Your task to perform on an android device: toggle airplane mode Image 0: 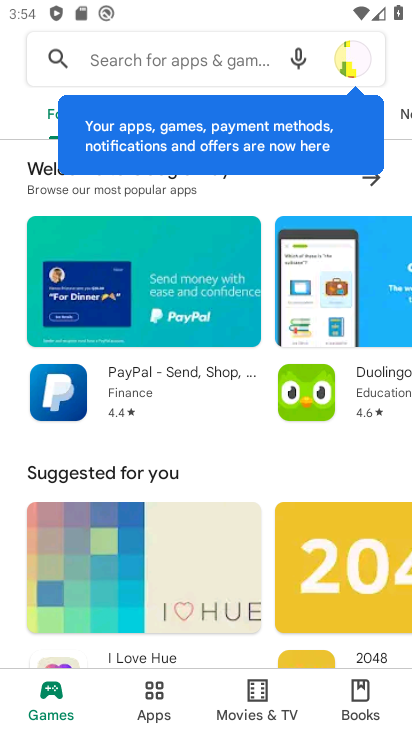
Step 0: press home button
Your task to perform on an android device: toggle airplane mode Image 1: 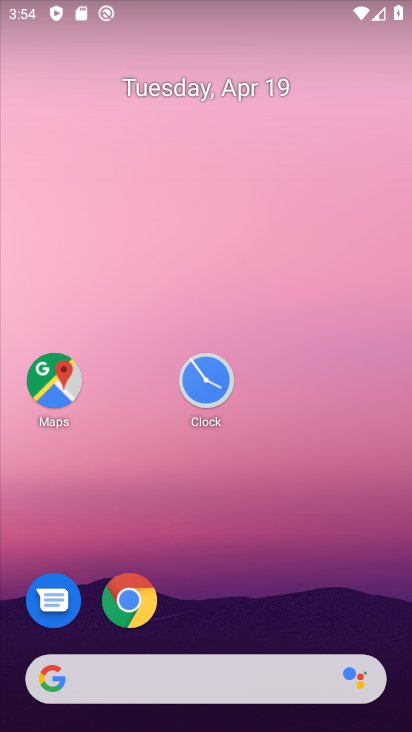
Step 1: drag from (274, 705) to (213, 200)
Your task to perform on an android device: toggle airplane mode Image 2: 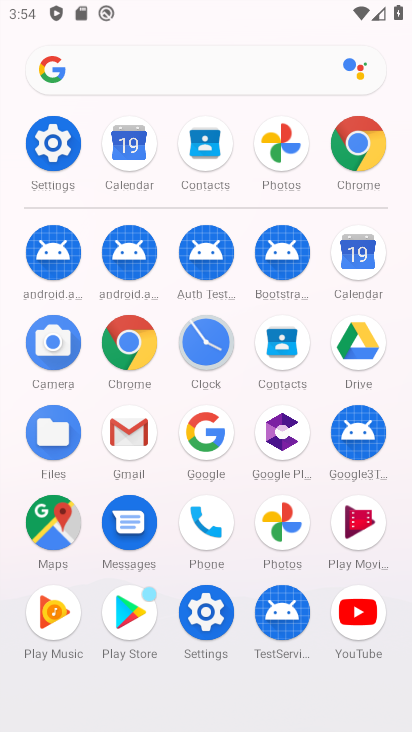
Step 2: click (57, 146)
Your task to perform on an android device: toggle airplane mode Image 3: 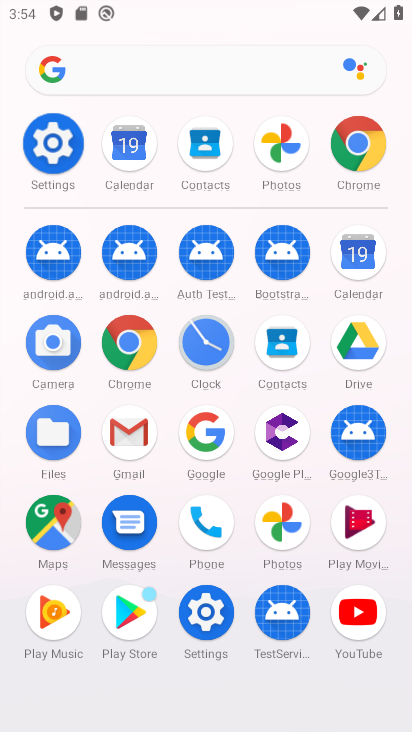
Step 3: click (57, 146)
Your task to perform on an android device: toggle airplane mode Image 4: 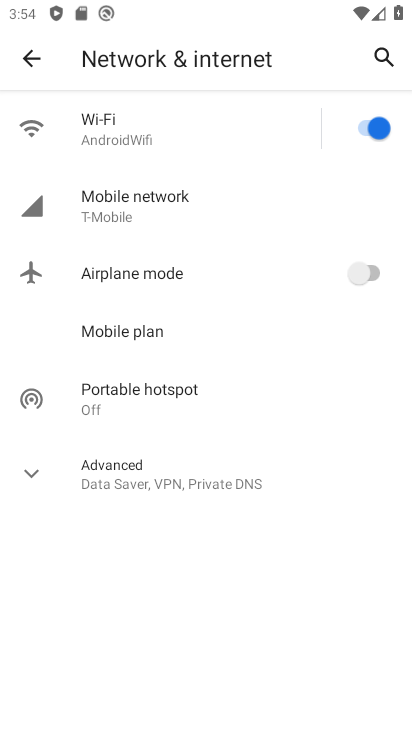
Step 4: click (362, 259)
Your task to perform on an android device: toggle airplane mode Image 5: 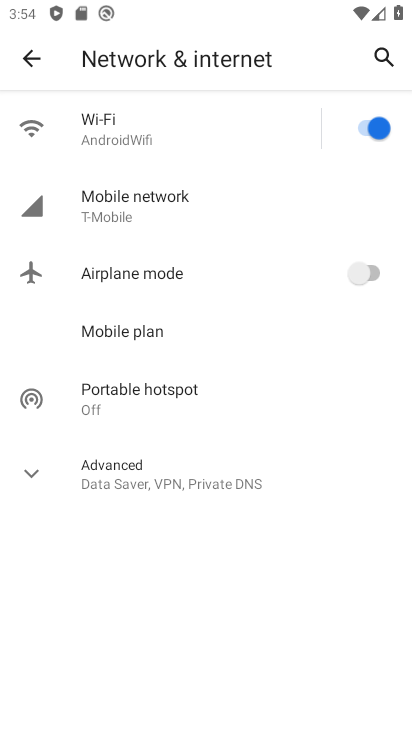
Step 5: click (357, 275)
Your task to perform on an android device: toggle airplane mode Image 6: 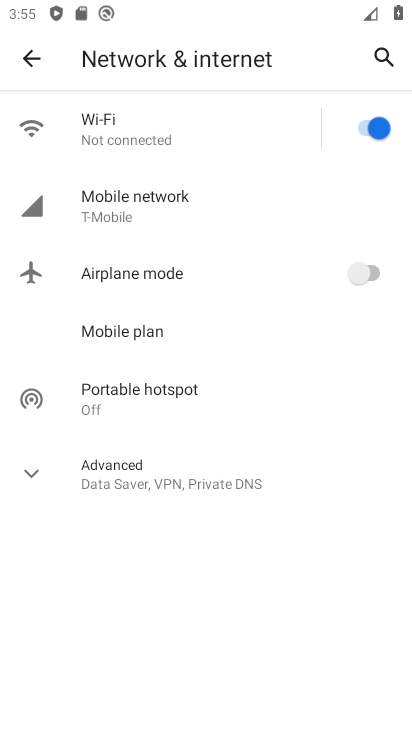
Step 6: task complete